Your task to perform on an android device: check out phone information Image 0: 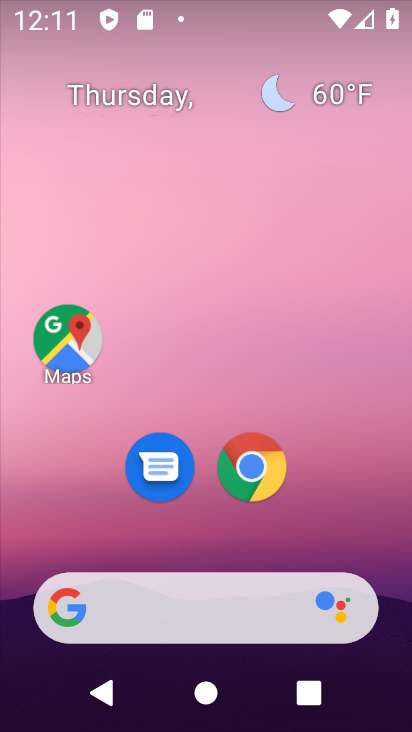
Step 0: drag from (208, 549) to (236, 154)
Your task to perform on an android device: check out phone information Image 1: 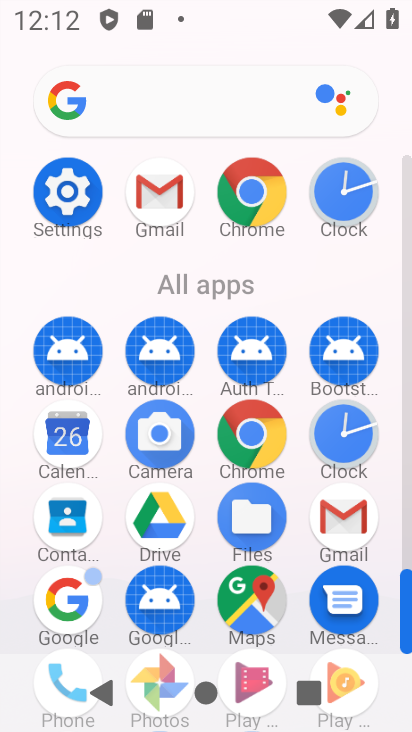
Step 1: click (85, 211)
Your task to perform on an android device: check out phone information Image 2: 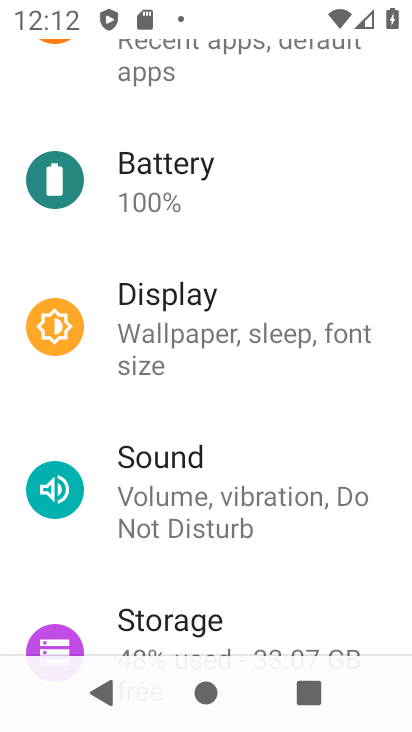
Step 2: drag from (253, 508) to (268, 198)
Your task to perform on an android device: check out phone information Image 3: 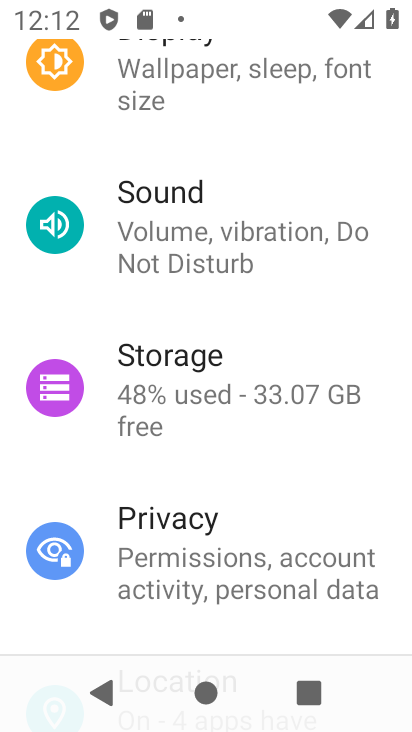
Step 3: drag from (260, 517) to (297, 50)
Your task to perform on an android device: check out phone information Image 4: 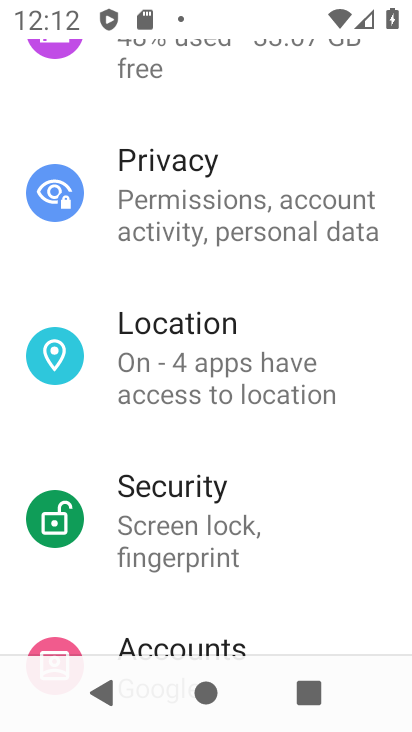
Step 4: drag from (241, 469) to (289, 69)
Your task to perform on an android device: check out phone information Image 5: 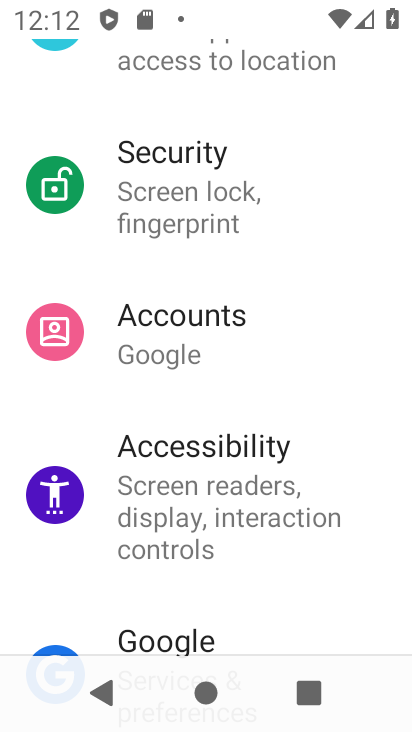
Step 5: drag from (250, 558) to (264, 238)
Your task to perform on an android device: check out phone information Image 6: 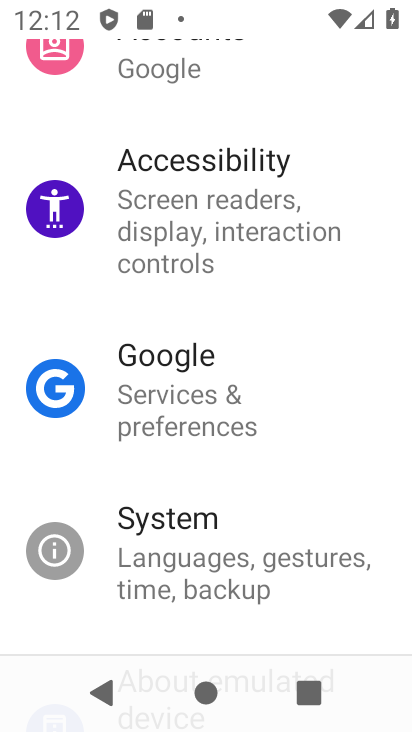
Step 6: drag from (202, 574) to (246, 206)
Your task to perform on an android device: check out phone information Image 7: 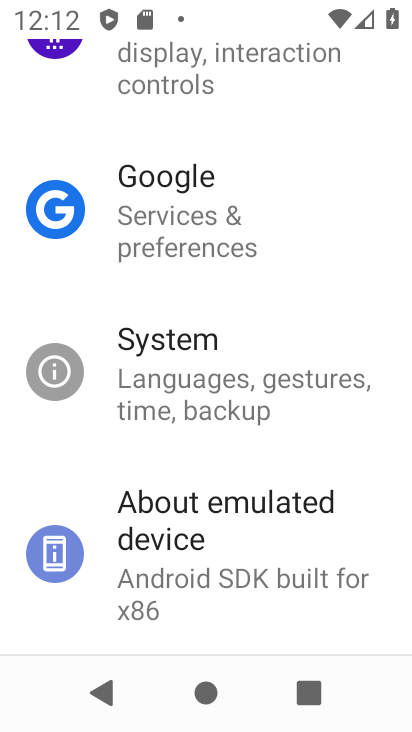
Step 7: click (209, 556)
Your task to perform on an android device: check out phone information Image 8: 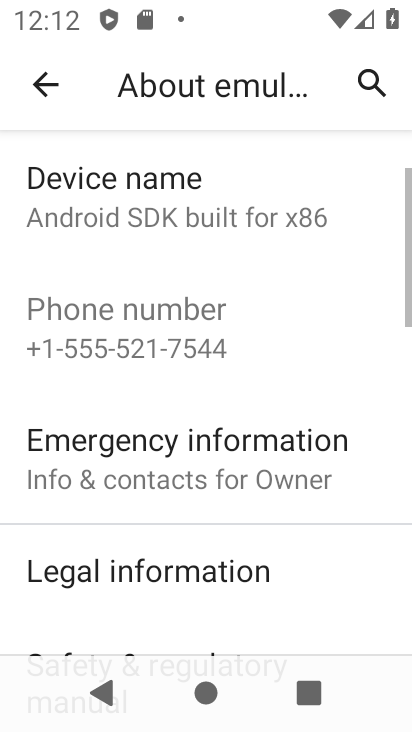
Step 8: task complete